Your task to perform on an android device: What's the weather? Image 0: 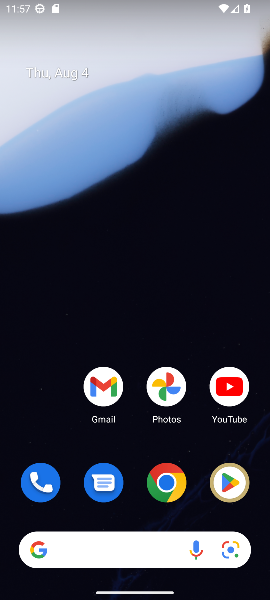
Step 0: drag from (142, 508) to (159, 126)
Your task to perform on an android device: What's the weather? Image 1: 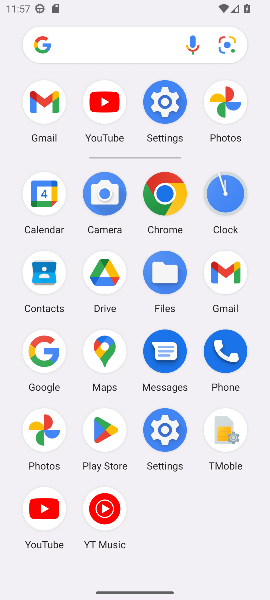
Step 1: click (49, 360)
Your task to perform on an android device: What's the weather? Image 2: 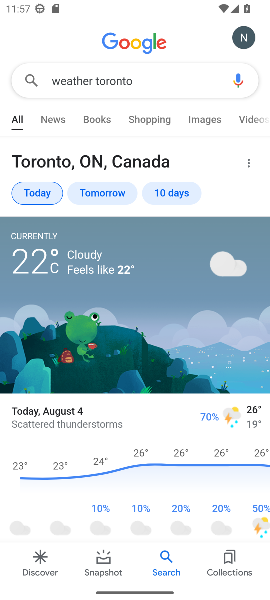
Step 2: task complete